Your task to perform on an android device: Toggle the flashlight Image 0: 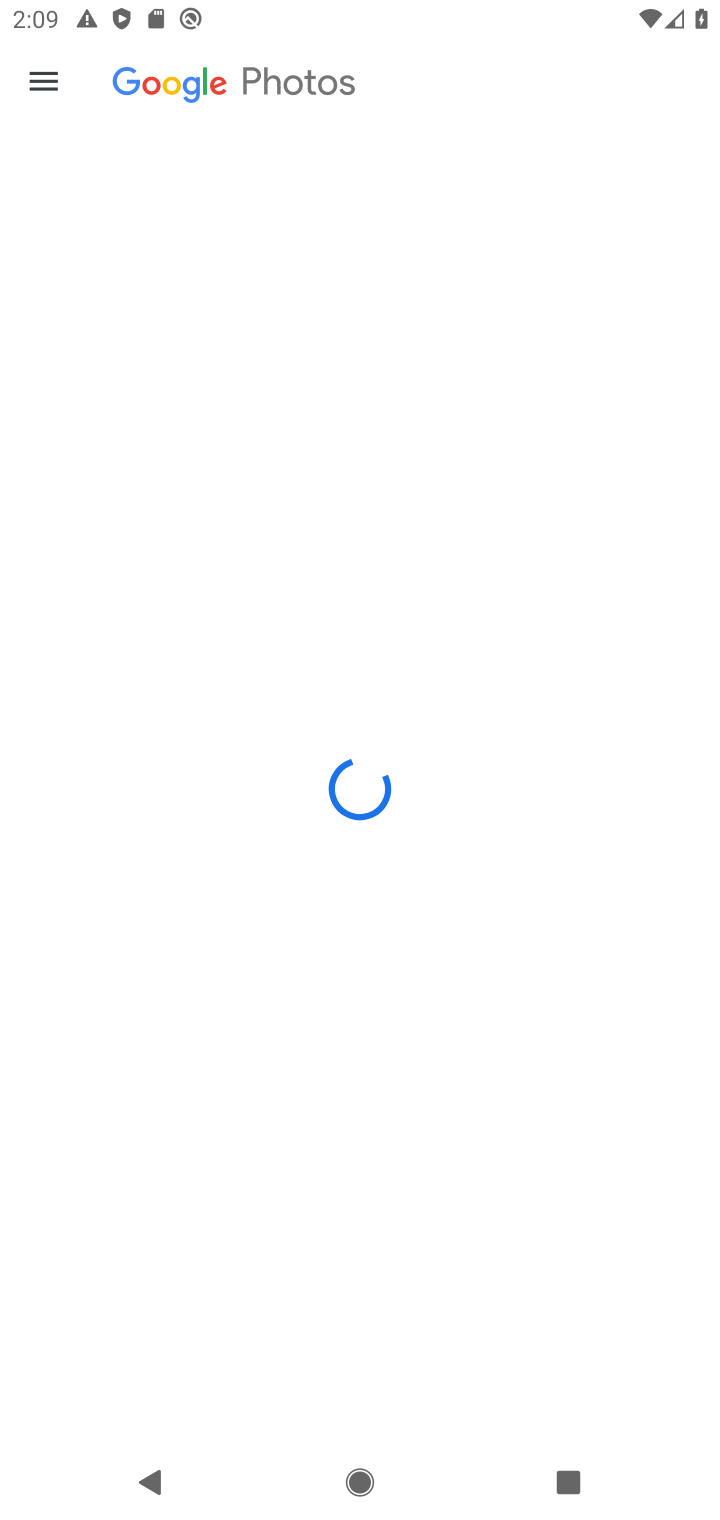
Step 0: press home button
Your task to perform on an android device: Toggle the flashlight Image 1: 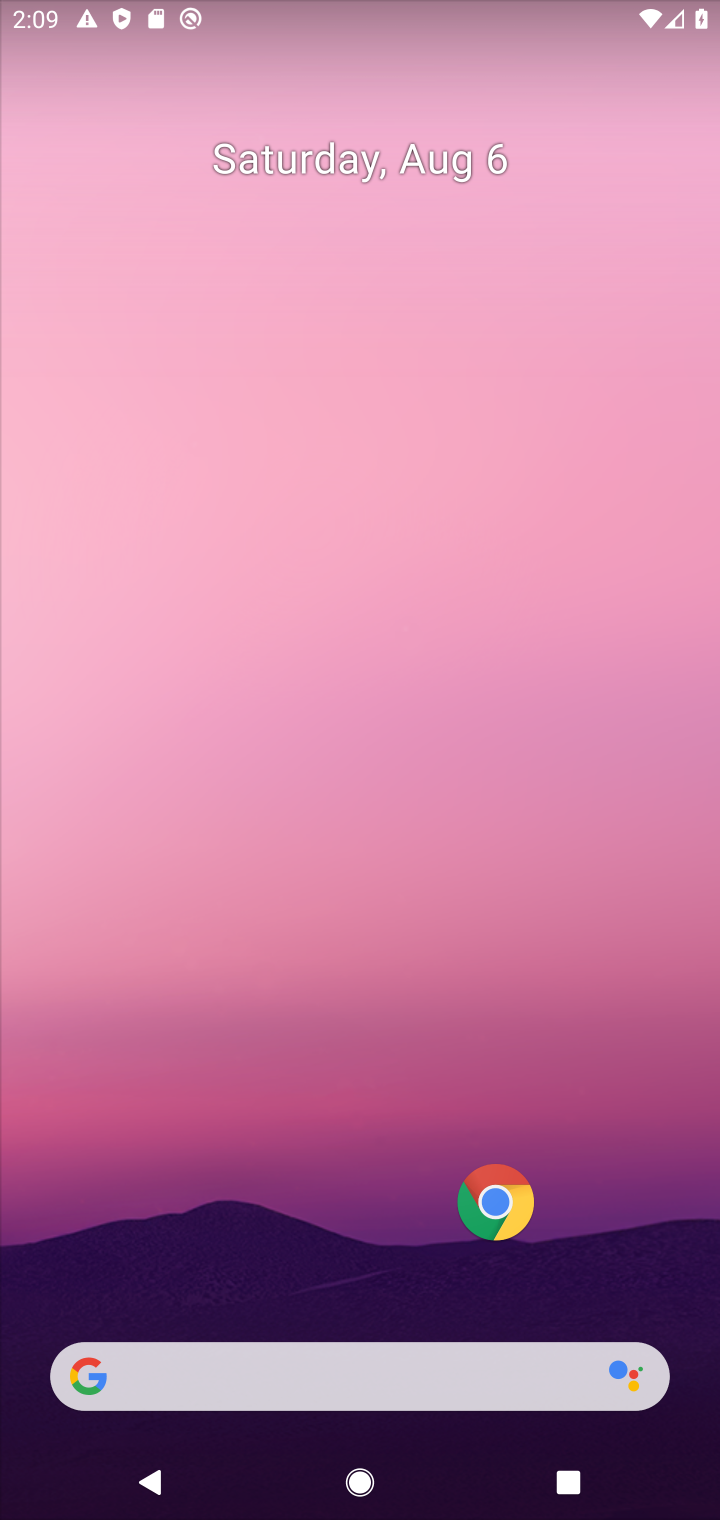
Step 1: click (423, 235)
Your task to perform on an android device: Toggle the flashlight Image 2: 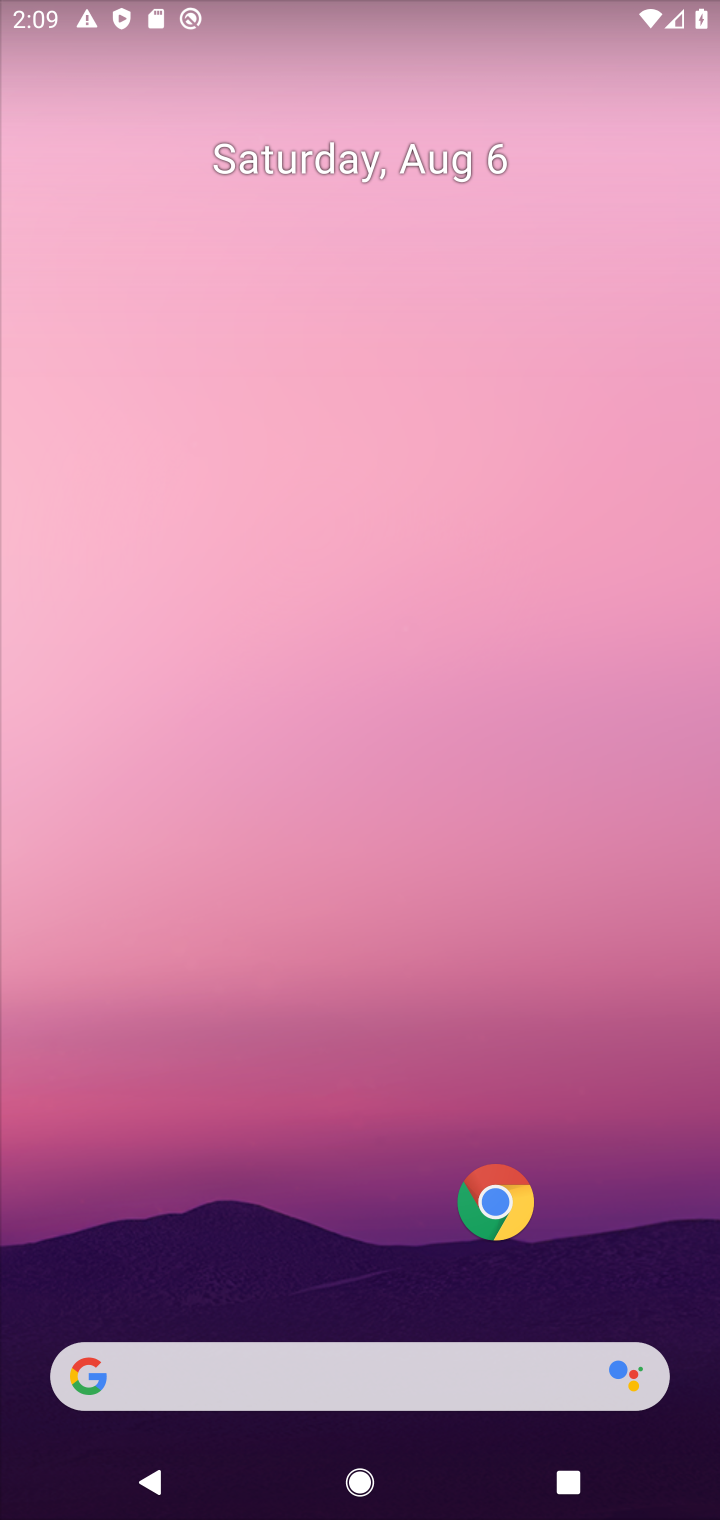
Step 2: task complete